Your task to perform on an android device: change the clock display to digital Image 0: 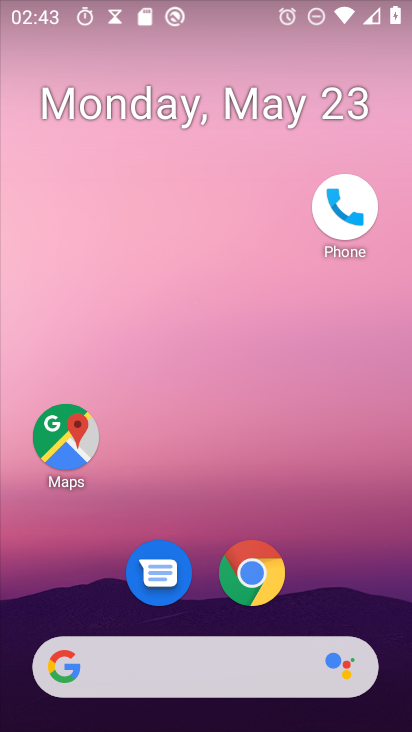
Step 0: press home button
Your task to perform on an android device: change the clock display to digital Image 1: 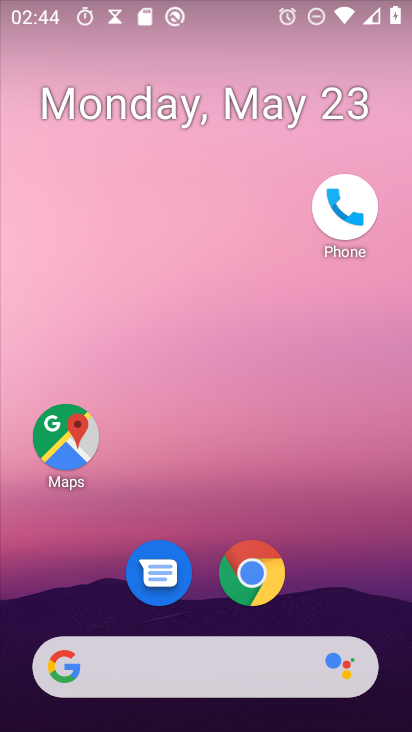
Step 1: drag from (176, 675) to (313, 74)
Your task to perform on an android device: change the clock display to digital Image 2: 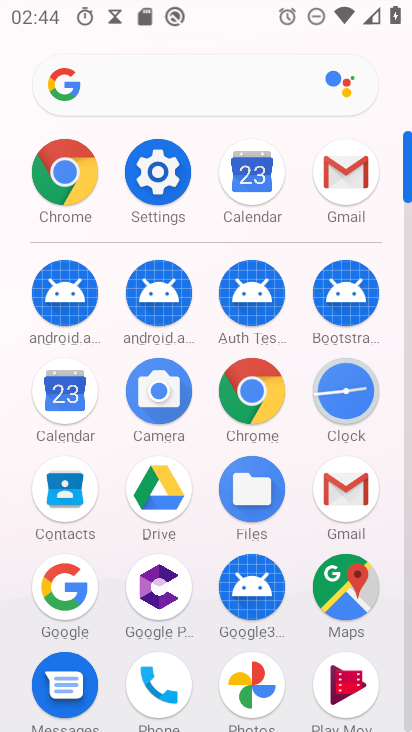
Step 2: click (355, 393)
Your task to perform on an android device: change the clock display to digital Image 3: 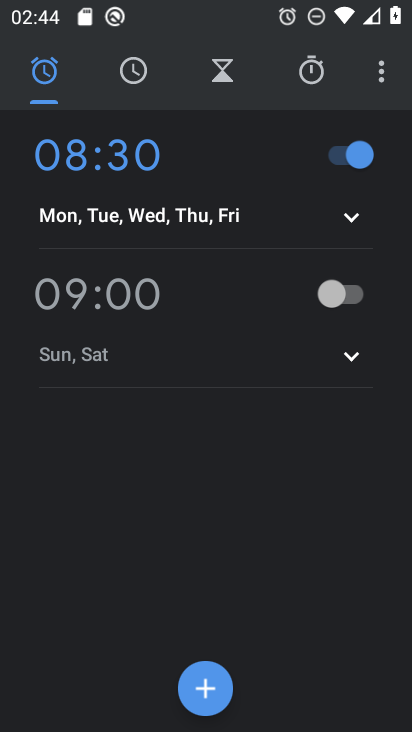
Step 3: click (379, 67)
Your task to perform on an android device: change the clock display to digital Image 4: 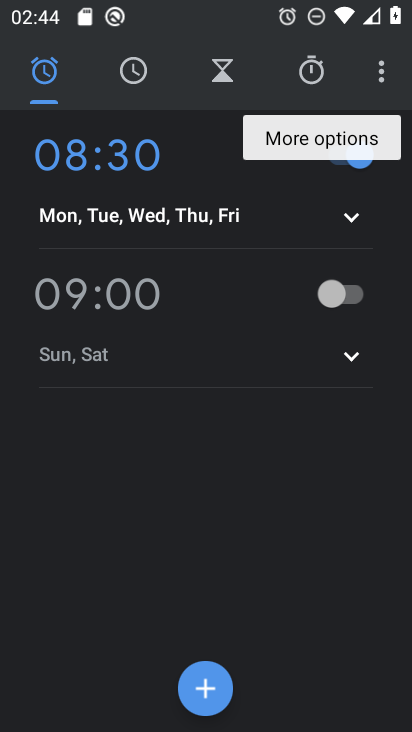
Step 4: click (379, 67)
Your task to perform on an android device: change the clock display to digital Image 5: 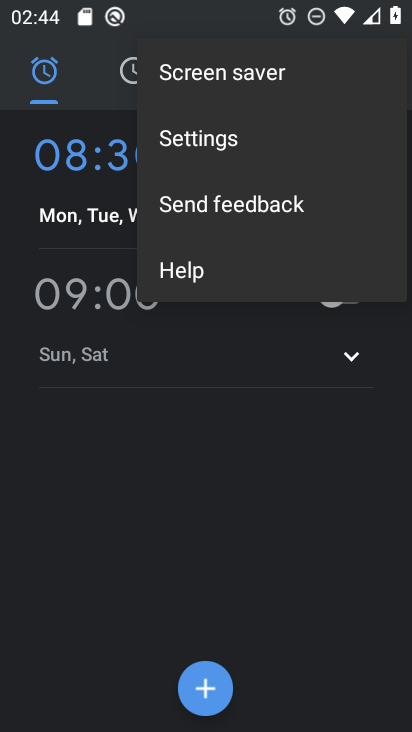
Step 5: click (211, 136)
Your task to perform on an android device: change the clock display to digital Image 6: 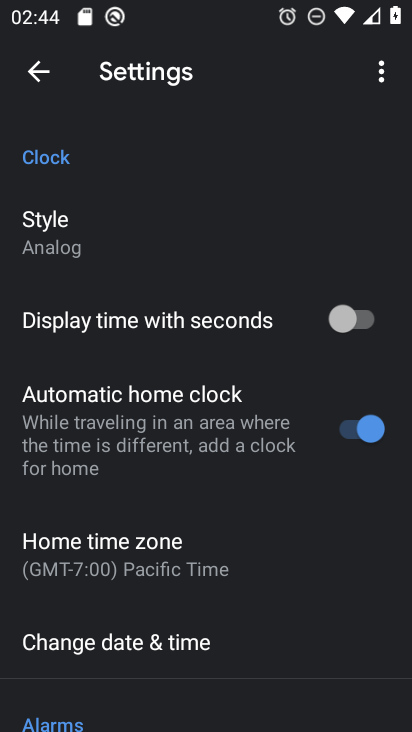
Step 6: click (48, 250)
Your task to perform on an android device: change the clock display to digital Image 7: 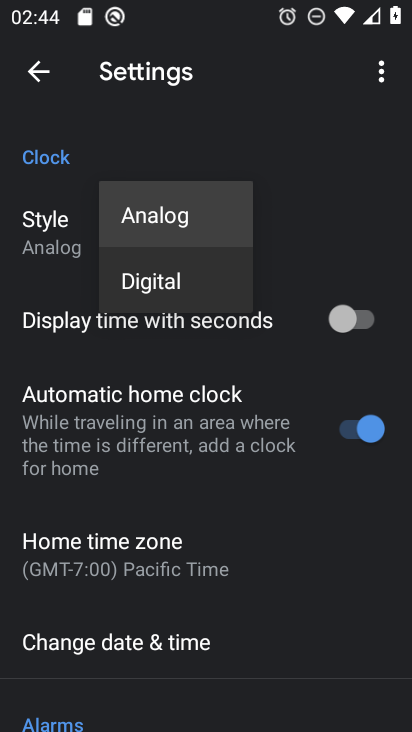
Step 7: click (146, 288)
Your task to perform on an android device: change the clock display to digital Image 8: 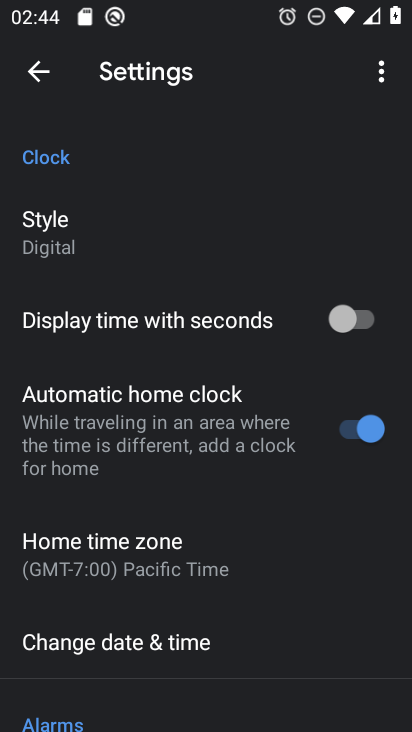
Step 8: task complete